Your task to perform on an android device: Open Wikipedia Image 0: 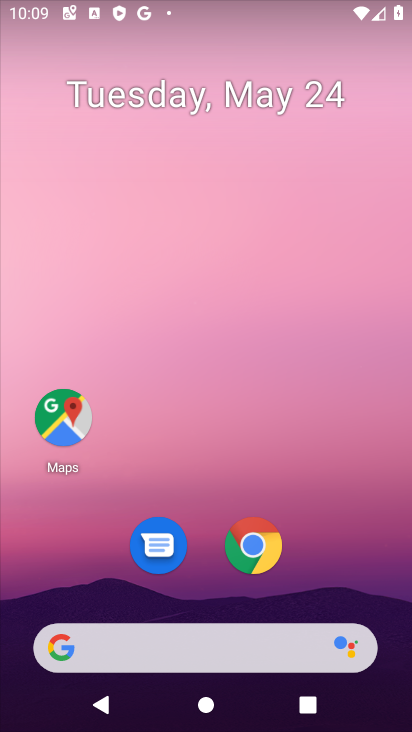
Step 0: click (257, 551)
Your task to perform on an android device: Open Wikipedia Image 1: 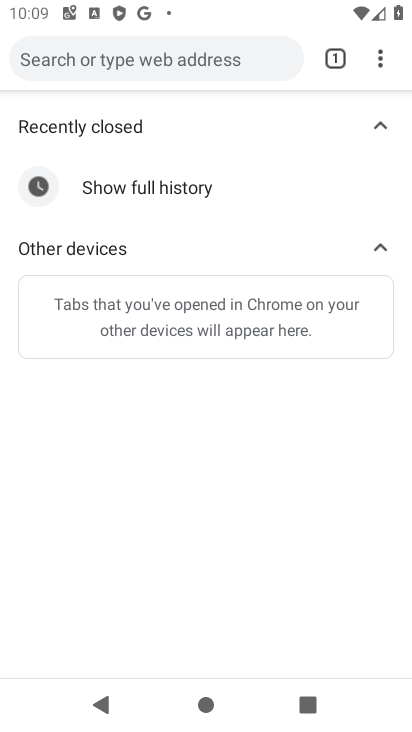
Step 1: click (378, 61)
Your task to perform on an android device: Open Wikipedia Image 2: 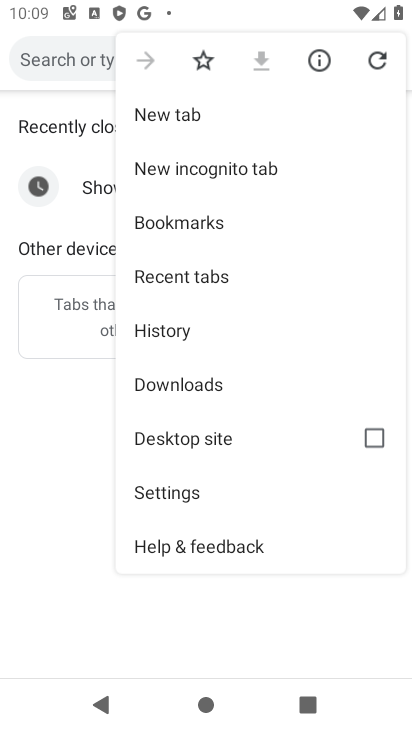
Step 2: click (300, 117)
Your task to perform on an android device: Open Wikipedia Image 3: 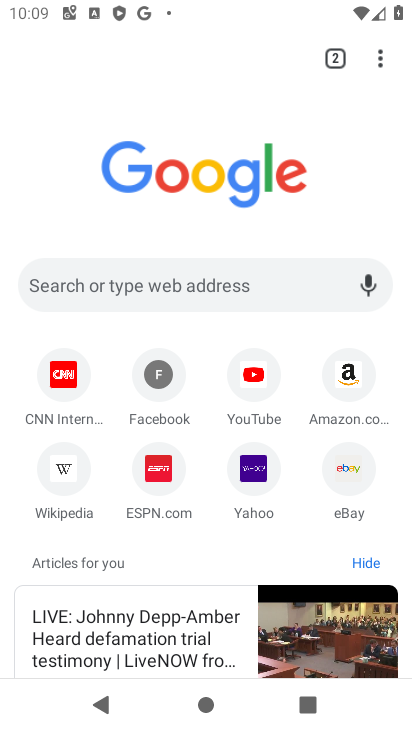
Step 3: click (68, 465)
Your task to perform on an android device: Open Wikipedia Image 4: 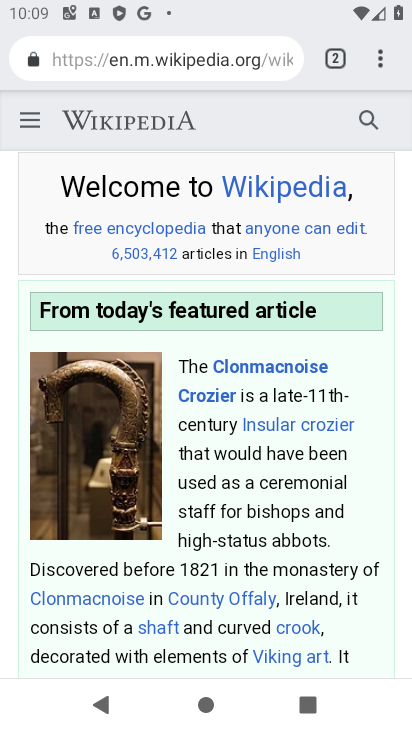
Step 4: task complete